Your task to perform on an android device: What's the weather going to be this weekend? Image 0: 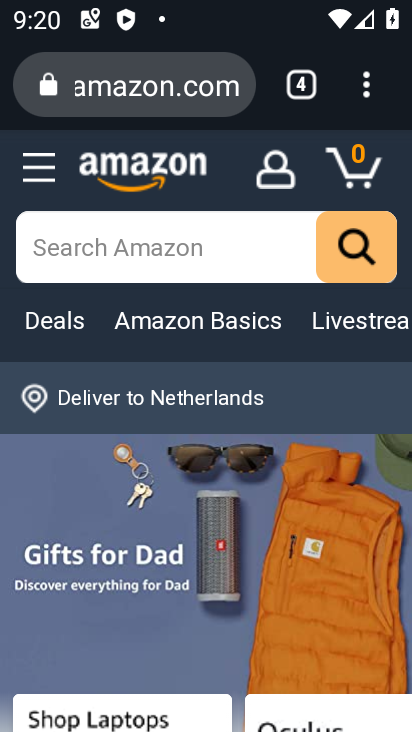
Step 0: press home button
Your task to perform on an android device: What's the weather going to be this weekend? Image 1: 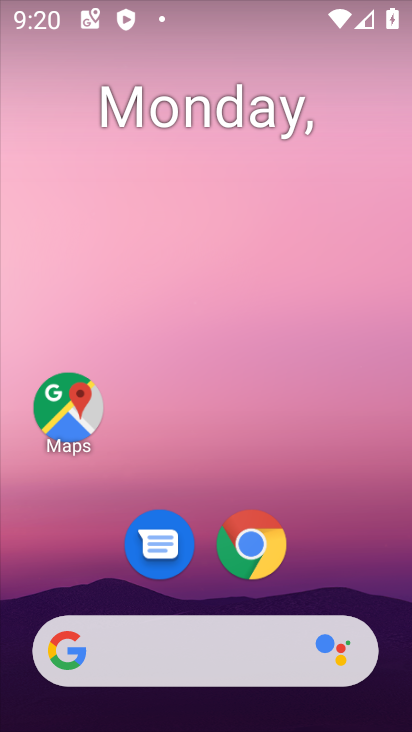
Step 1: click (147, 635)
Your task to perform on an android device: What's the weather going to be this weekend? Image 2: 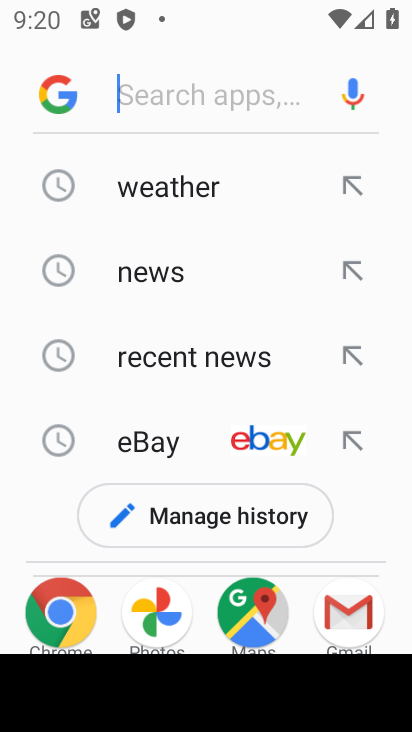
Step 2: click (167, 182)
Your task to perform on an android device: What's the weather going to be this weekend? Image 3: 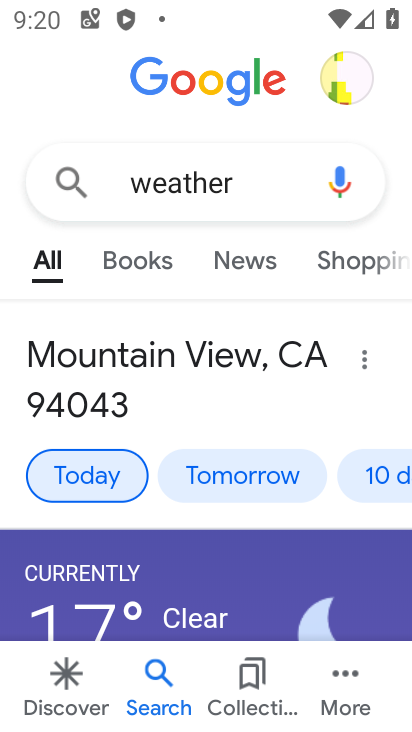
Step 3: click (371, 478)
Your task to perform on an android device: What's the weather going to be this weekend? Image 4: 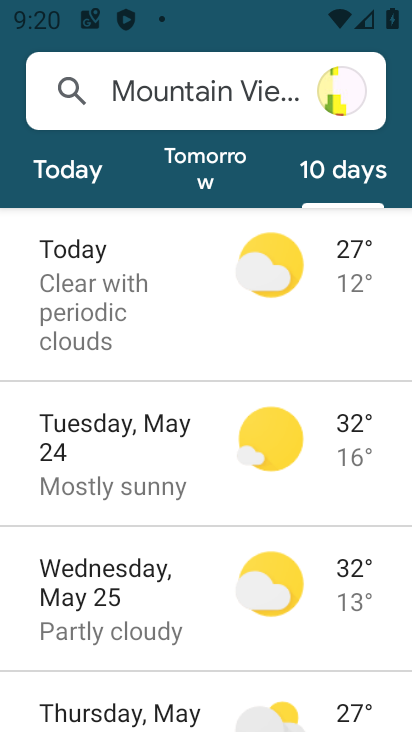
Step 4: task complete